Your task to perform on an android device: Open Youtube and go to the subscriptions tab Image 0: 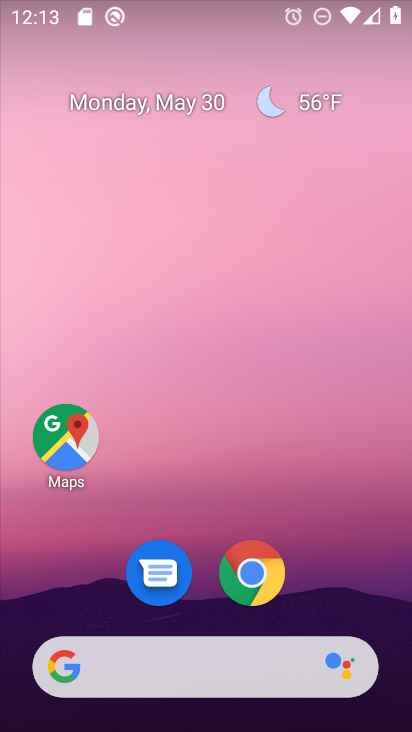
Step 0: drag from (140, 588) to (165, 0)
Your task to perform on an android device: Open Youtube and go to the subscriptions tab Image 1: 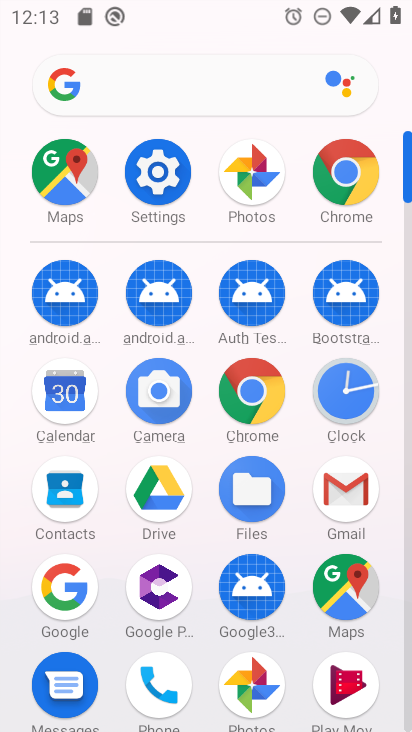
Step 1: drag from (303, 616) to (323, 216)
Your task to perform on an android device: Open Youtube and go to the subscriptions tab Image 2: 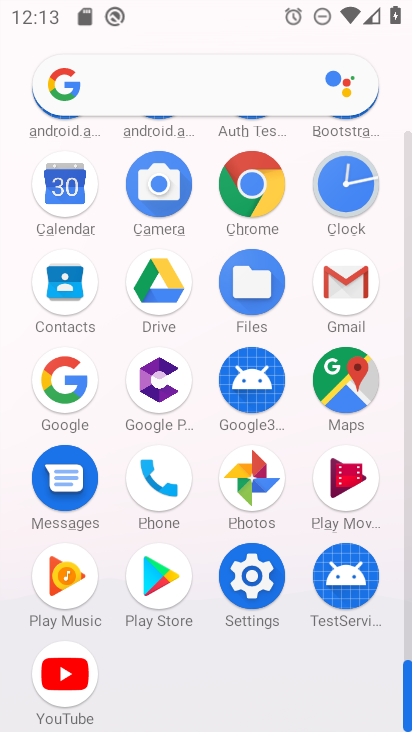
Step 2: click (66, 685)
Your task to perform on an android device: Open Youtube and go to the subscriptions tab Image 3: 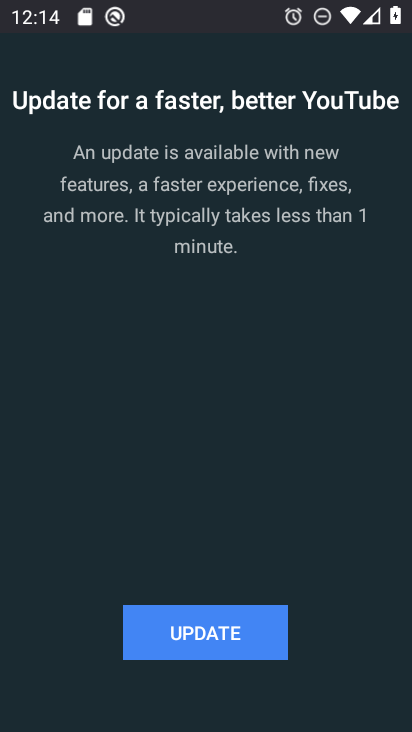
Step 3: click (152, 620)
Your task to perform on an android device: Open Youtube and go to the subscriptions tab Image 4: 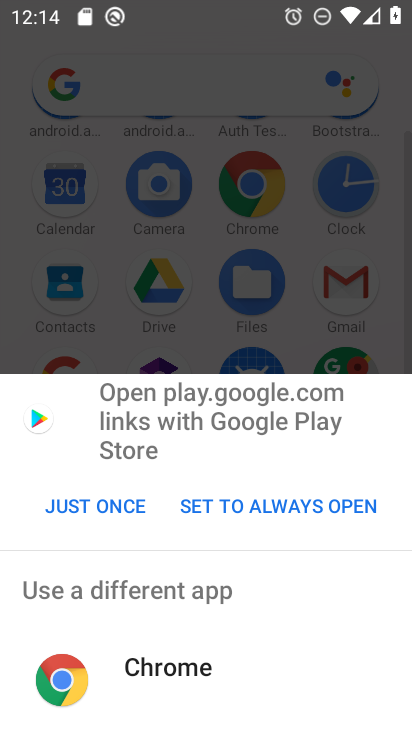
Step 4: click (86, 501)
Your task to perform on an android device: Open Youtube and go to the subscriptions tab Image 5: 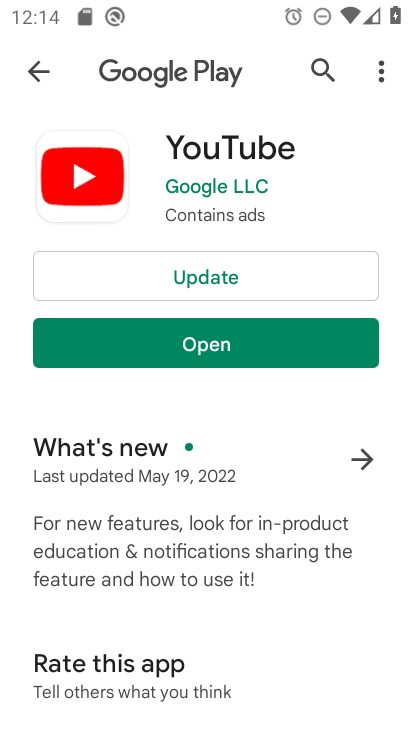
Step 5: click (242, 275)
Your task to perform on an android device: Open Youtube and go to the subscriptions tab Image 6: 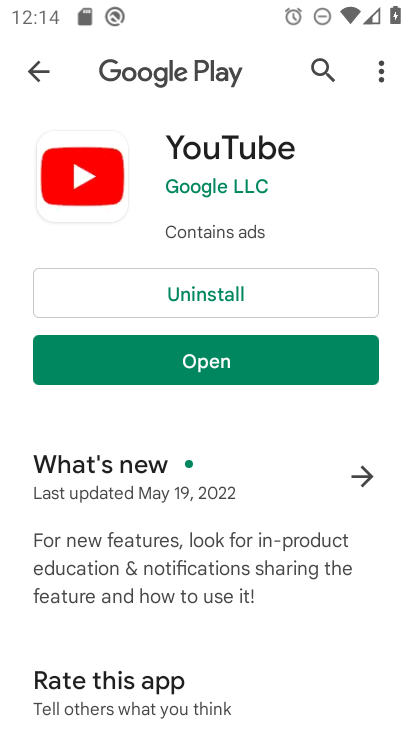
Step 6: click (160, 354)
Your task to perform on an android device: Open Youtube and go to the subscriptions tab Image 7: 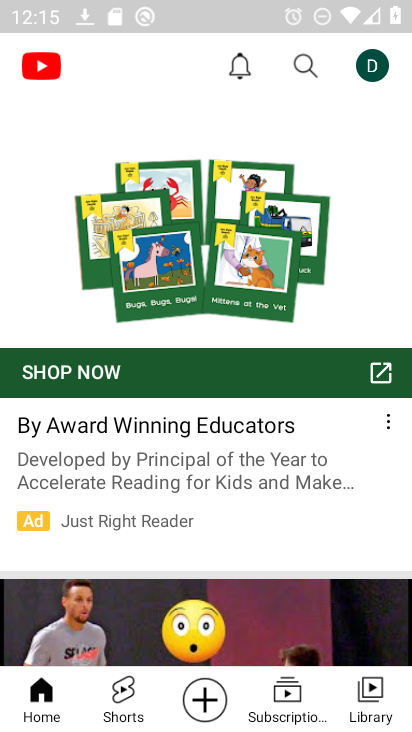
Step 7: click (293, 700)
Your task to perform on an android device: Open Youtube and go to the subscriptions tab Image 8: 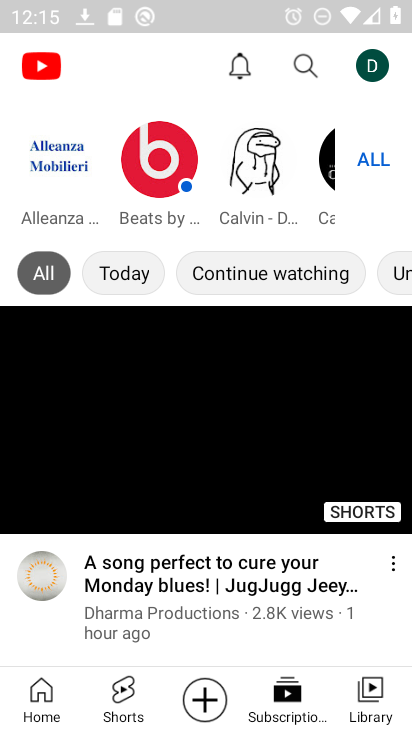
Step 8: task complete